Your task to perform on an android device: Open Youtube and go to "Your channel" Image 0: 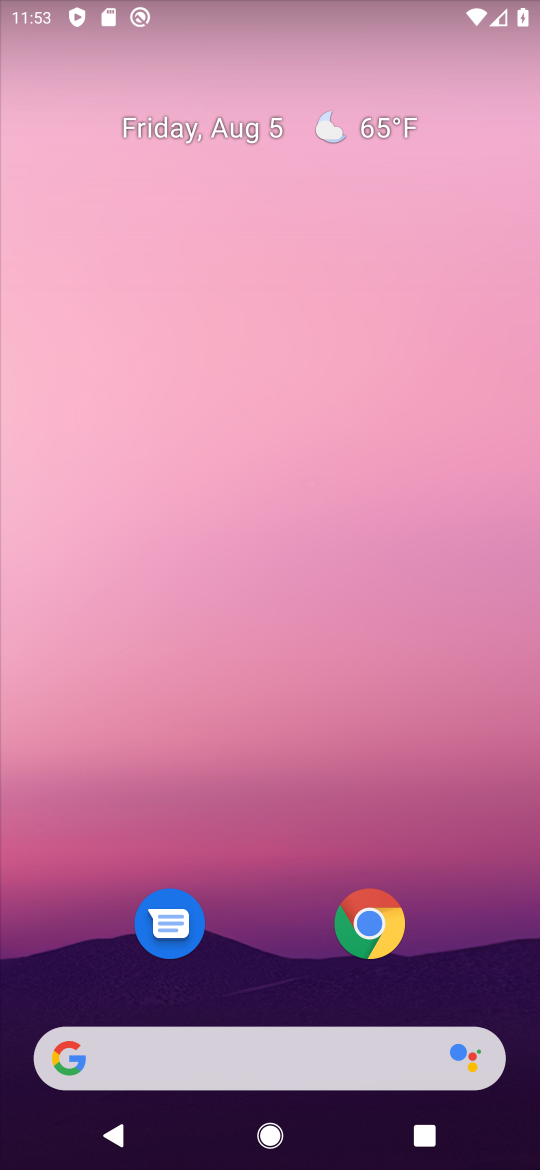
Step 0: drag from (479, 945) to (305, 21)
Your task to perform on an android device: Open Youtube and go to "Your channel" Image 1: 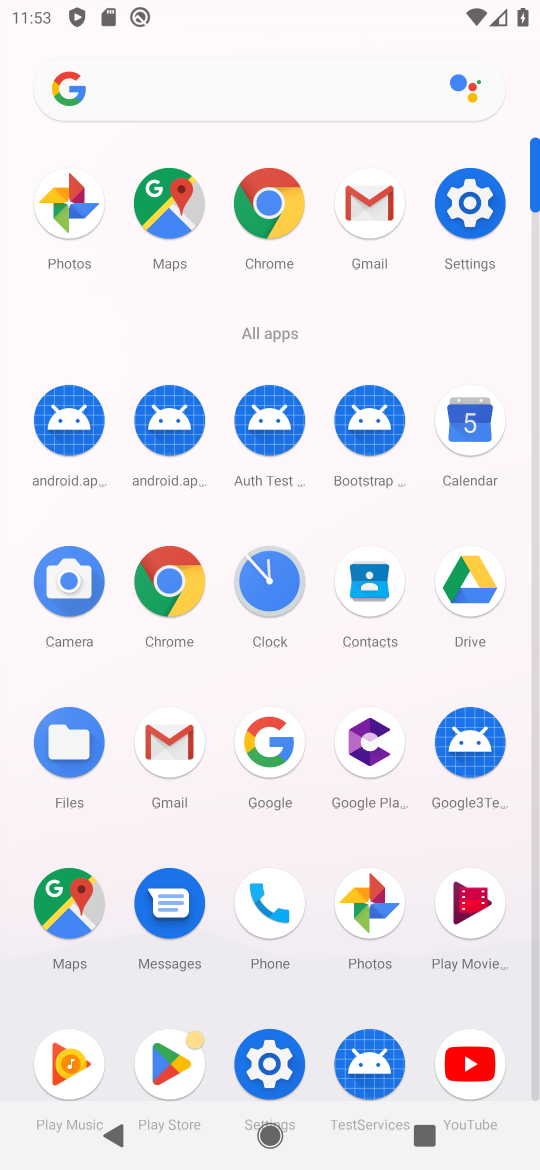
Step 1: click (464, 1053)
Your task to perform on an android device: Open Youtube and go to "Your channel" Image 2: 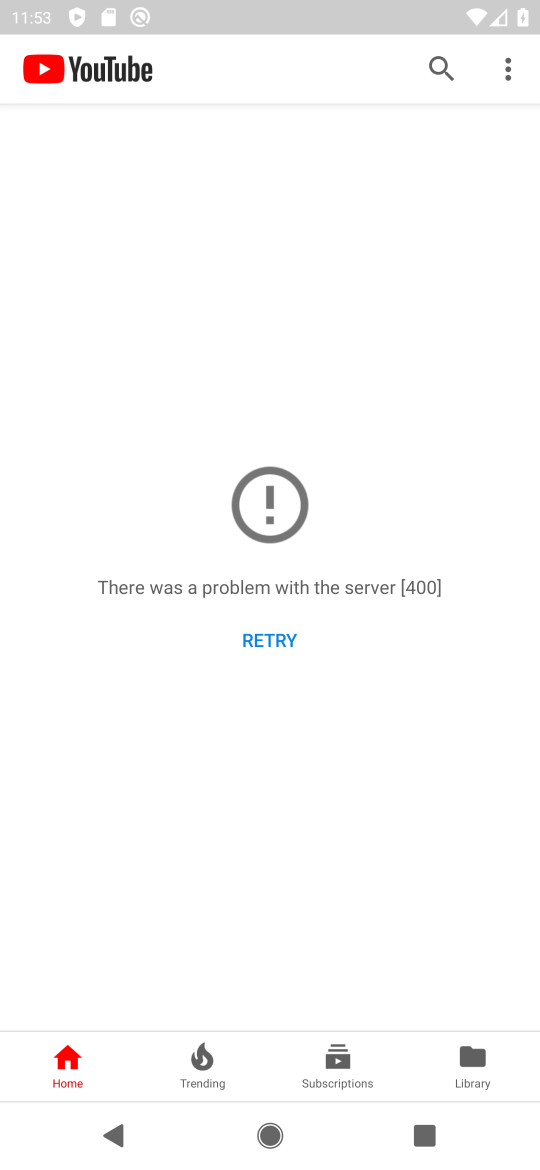
Step 2: click (512, 84)
Your task to perform on an android device: Open Youtube and go to "Your channel" Image 3: 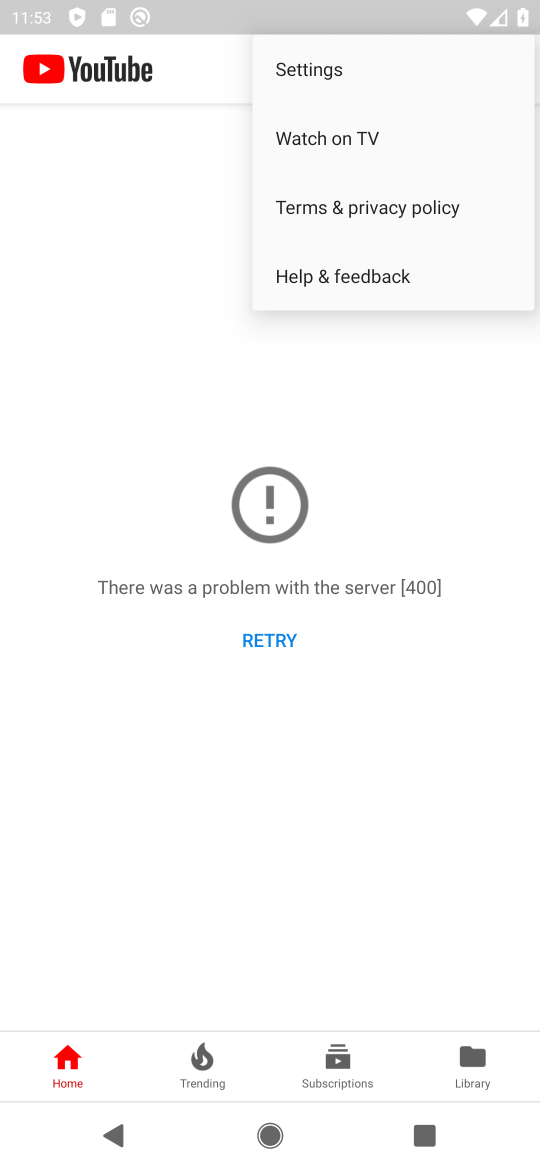
Step 3: task complete